Your task to perform on an android device: open chrome and create a bookmark for the current page Image 0: 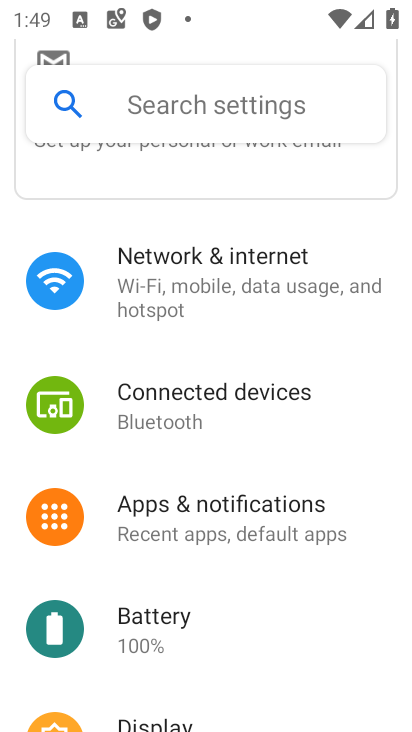
Step 0: press home button
Your task to perform on an android device: open chrome and create a bookmark for the current page Image 1: 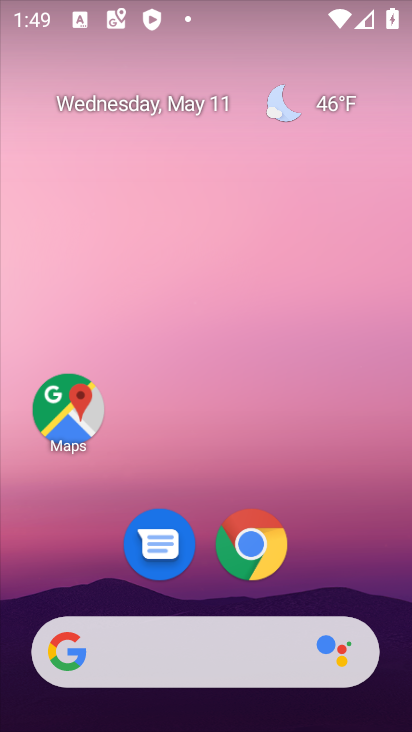
Step 1: click (250, 547)
Your task to perform on an android device: open chrome and create a bookmark for the current page Image 2: 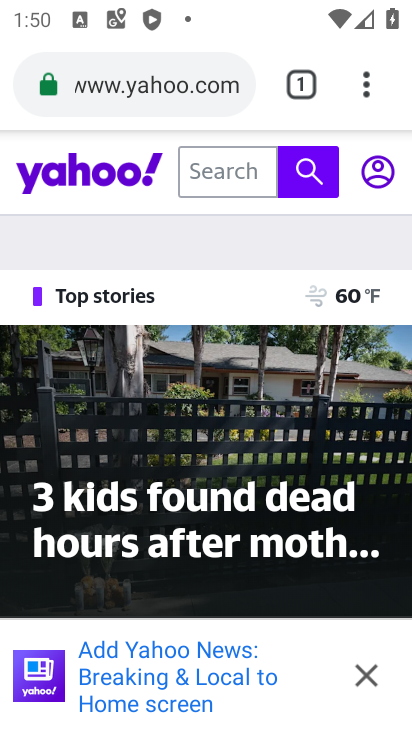
Step 2: click (360, 90)
Your task to perform on an android device: open chrome and create a bookmark for the current page Image 3: 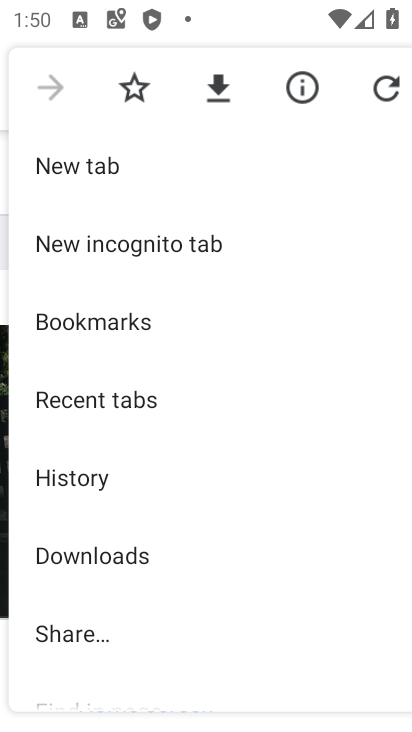
Step 3: click (134, 87)
Your task to perform on an android device: open chrome and create a bookmark for the current page Image 4: 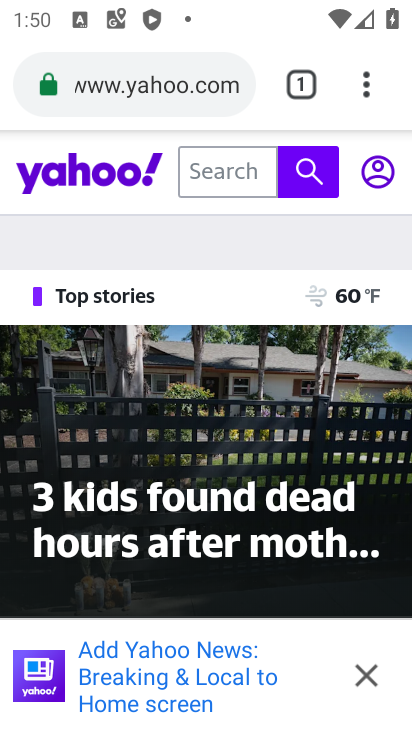
Step 4: task complete